Your task to perform on an android device: turn off notifications in google photos Image 0: 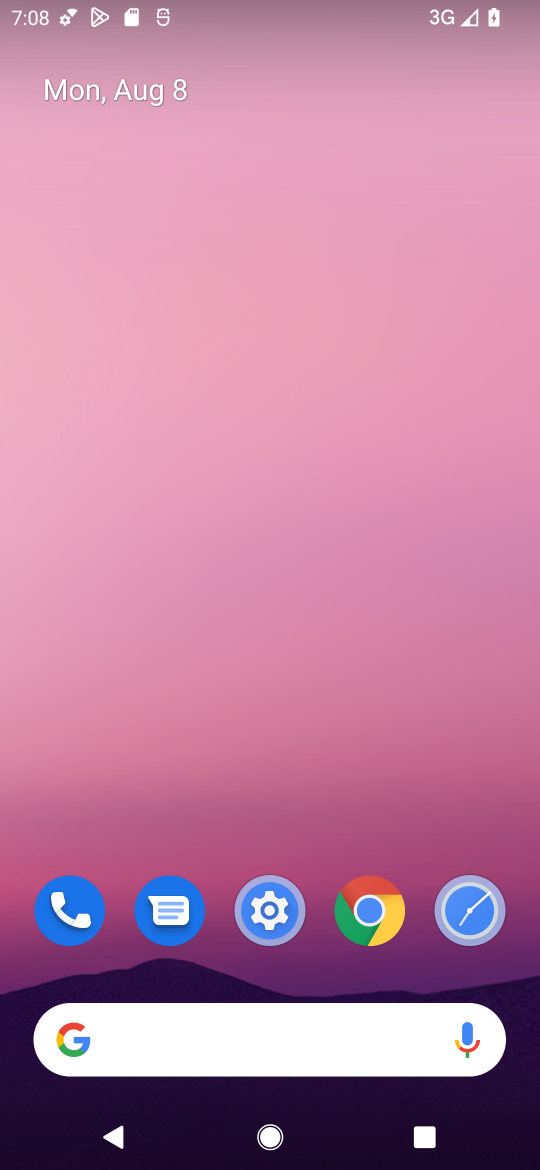
Step 0: drag from (376, 805) to (340, 63)
Your task to perform on an android device: turn off notifications in google photos Image 1: 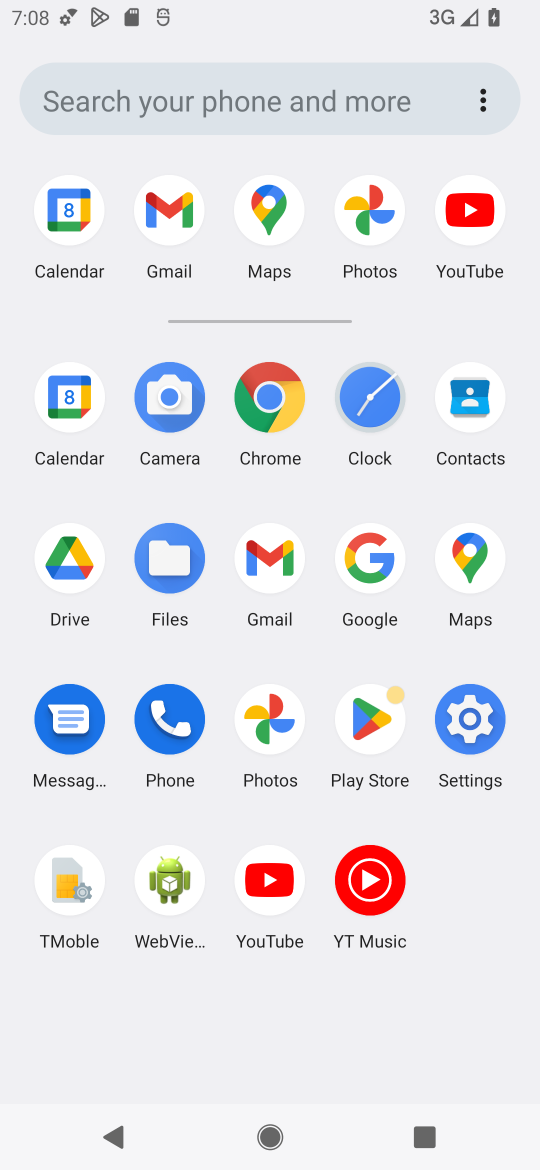
Step 1: click (365, 198)
Your task to perform on an android device: turn off notifications in google photos Image 2: 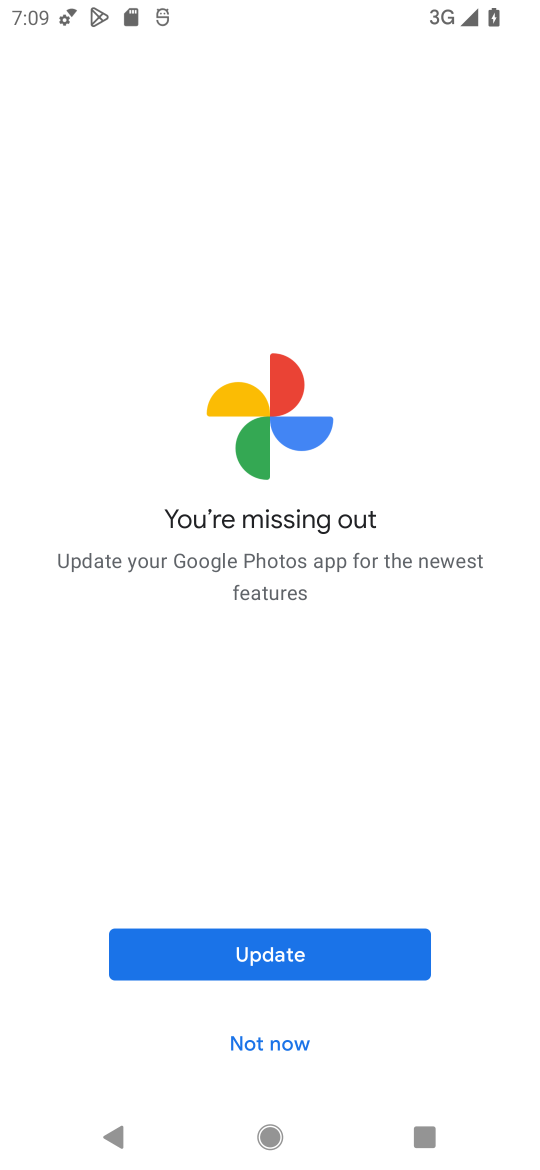
Step 2: click (269, 1043)
Your task to perform on an android device: turn off notifications in google photos Image 3: 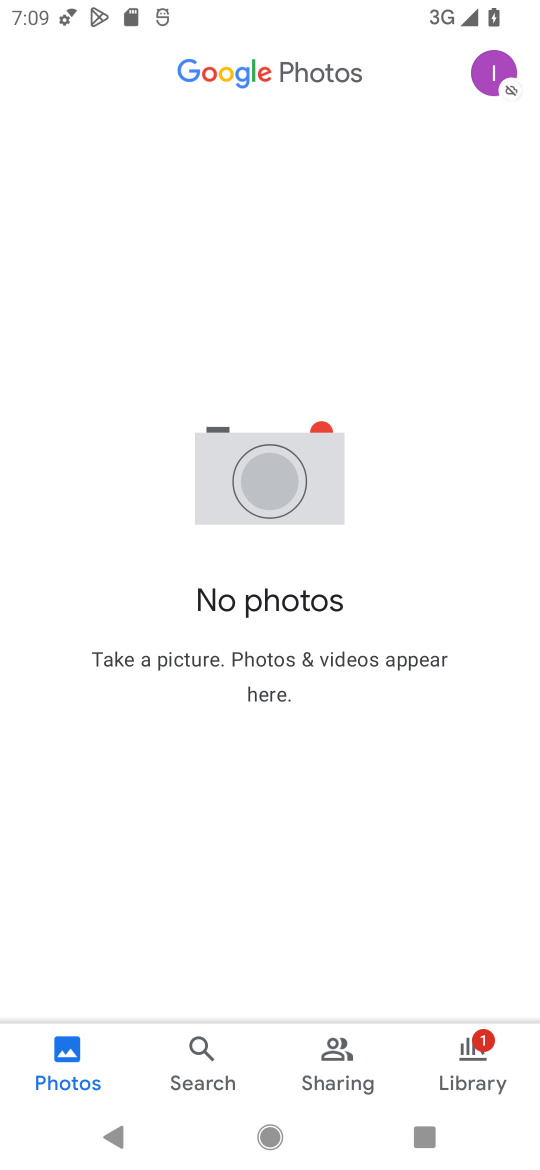
Step 3: click (499, 64)
Your task to perform on an android device: turn off notifications in google photos Image 4: 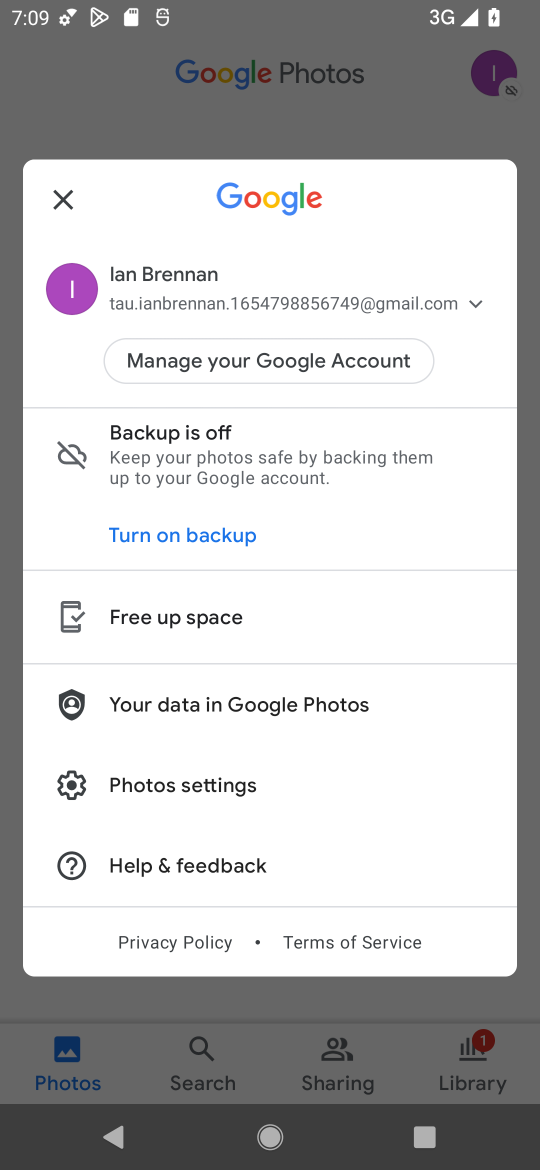
Step 4: click (197, 775)
Your task to perform on an android device: turn off notifications in google photos Image 5: 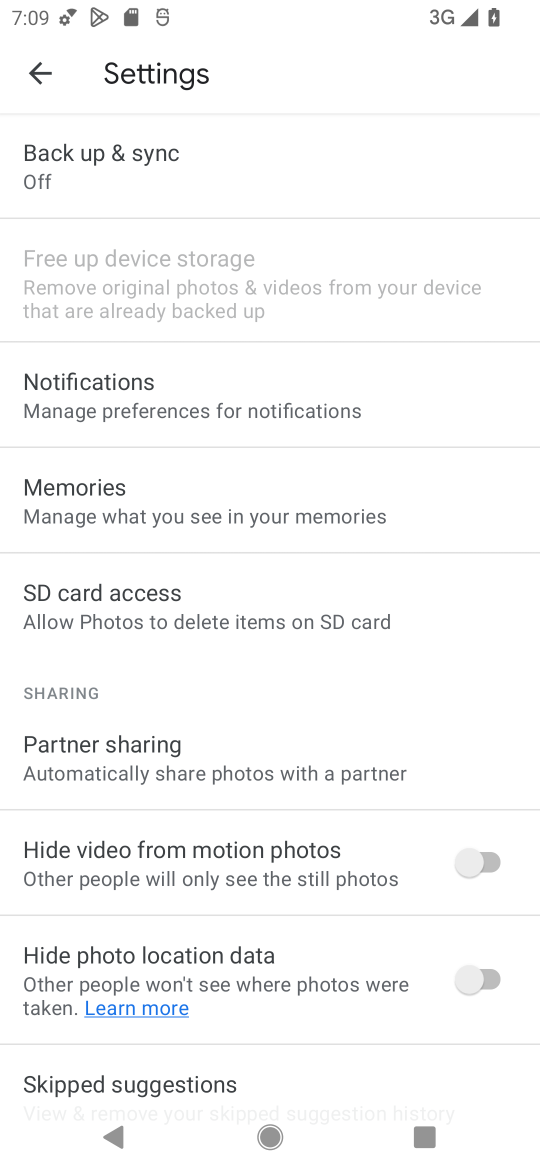
Step 5: click (150, 388)
Your task to perform on an android device: turn off notifications in google photos Image 6: 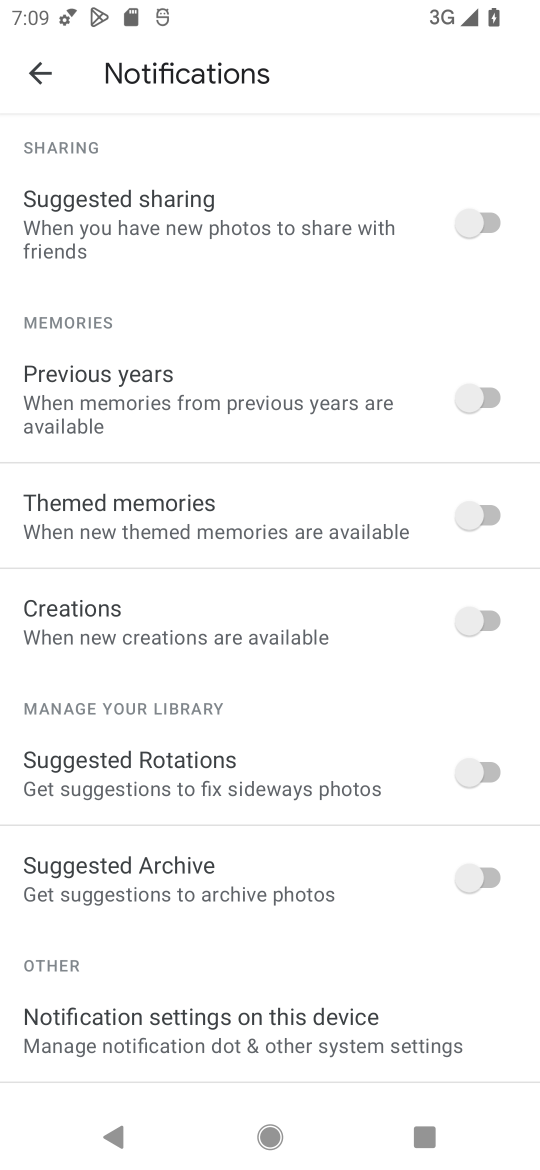
Step 6: task complete